Your task to perform on an android device: See recent photos Image 0: 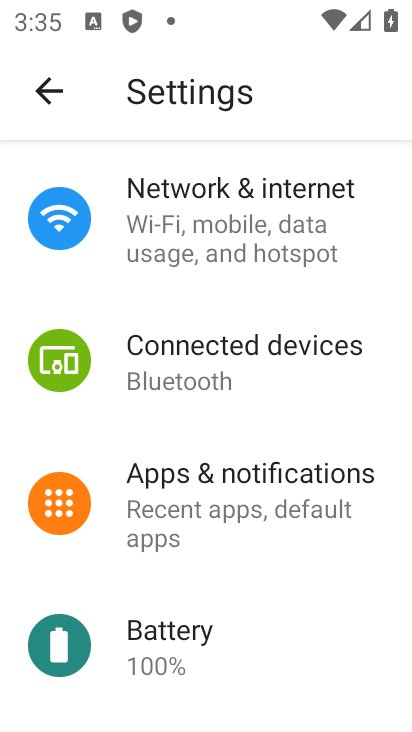
Step 0: press home button
Your task to perform on an android device: See recent photos Image 1: 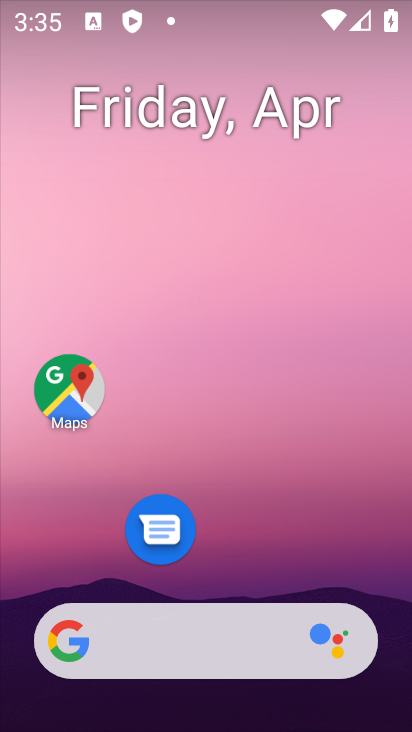
Step 1: drag from (274, 569) to (214, 151)
Your task to perform on an android device: See recent photos Image 2: 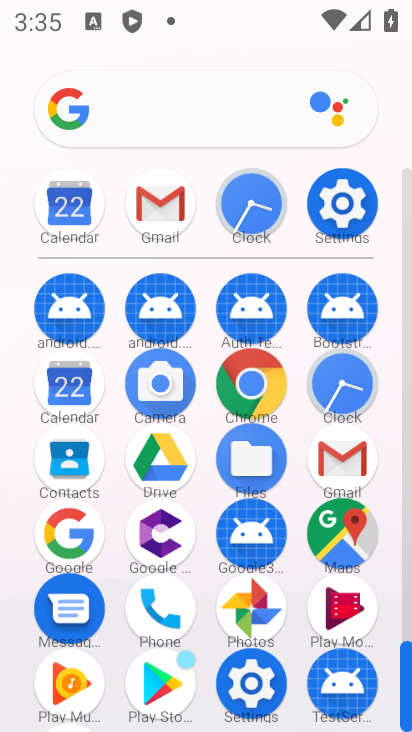
Step 2: click (262, 631)
Your task to perform on an android device: See recent photos Image 3: 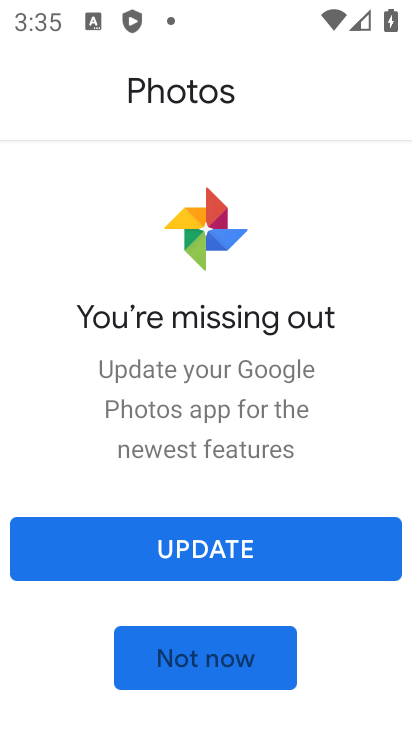
Step 3: task complete